Your task to perform on an android device: search for starred emails in the gmail app Image 0: 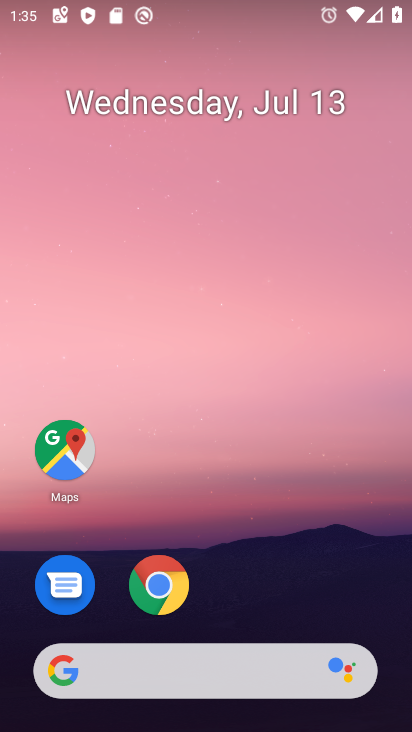
Step 0: drag from (192, 690) to (334, 140)
Your task to perform on an android device: search for starred emails in the gmail app Image 1: 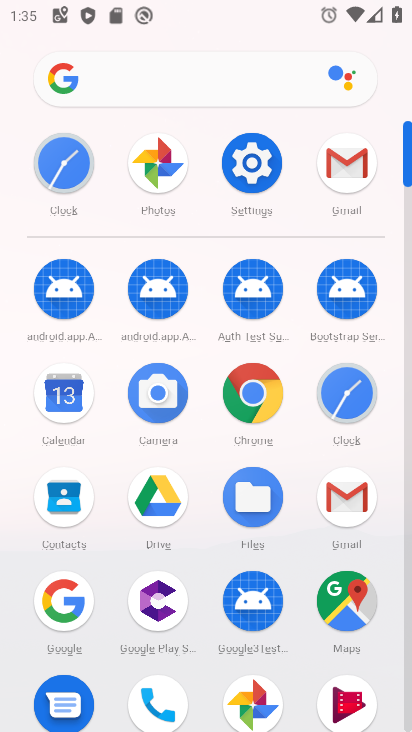
Step 1: click (340, 173)
Your task to perform on an android device: search for starred emails in the gmail app Image 2: 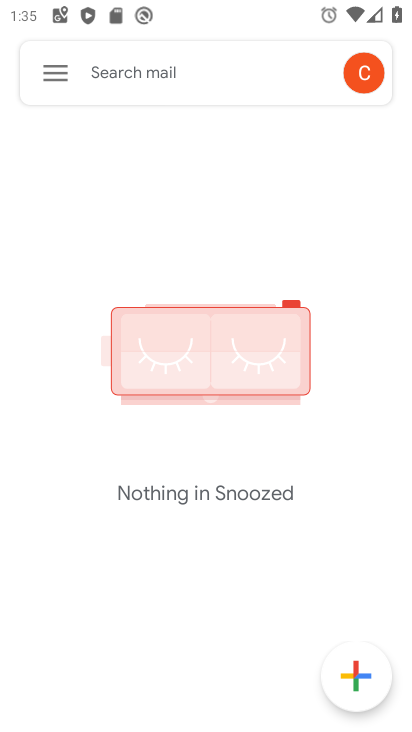
Step 2: click (63, 73)
Your task to perform on an android device: search for starred emails in the gmail app Image 3: 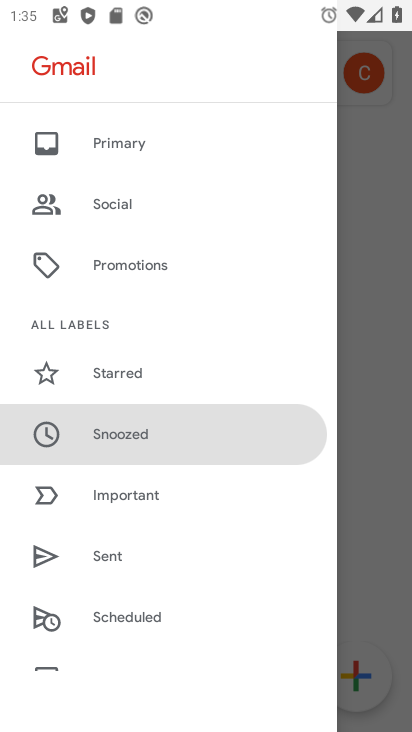
Step 3: click (121, 373)
Your task to perform on an android device: search for starred emails in the gmail app Image 4: 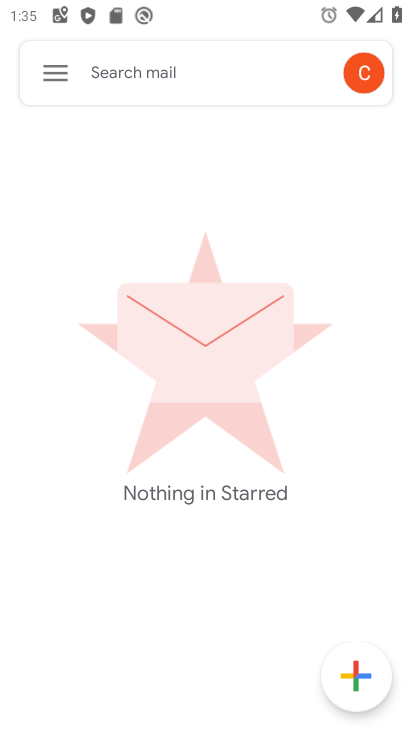
Step 4: task complete